Your task to perform on an android device: Check the weather Image 0: 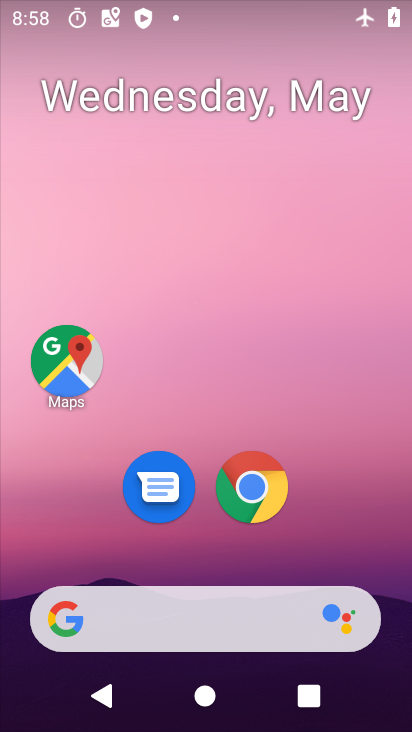
Step 0: drag from (198, 530) to (208, 178)
Your task to perform on an android device: Check the weather Image 1: 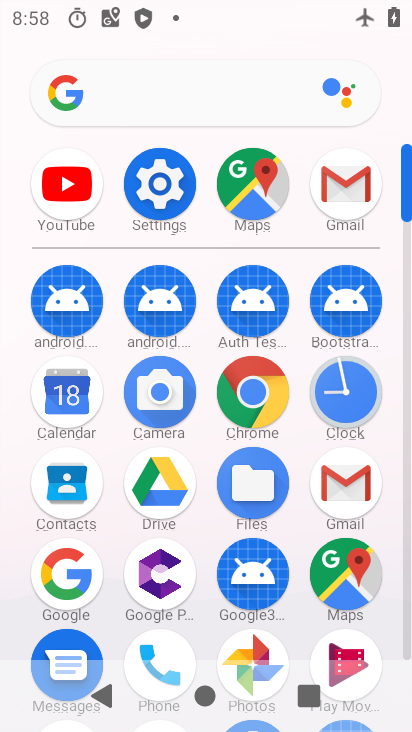
Step 1: drag from (110, 498) to (143, 244)
Your task to perform on an android device: Check the weather Image 2: 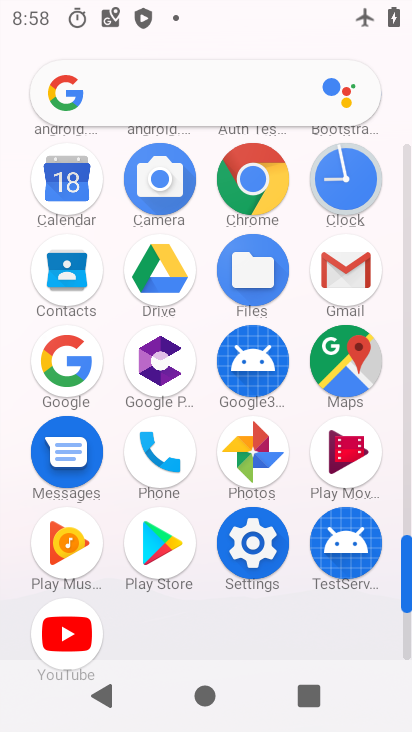
Step 2: drag from (143, 246) to (156, 523)
Your task to perform on an android device: Check the weather Image 3: 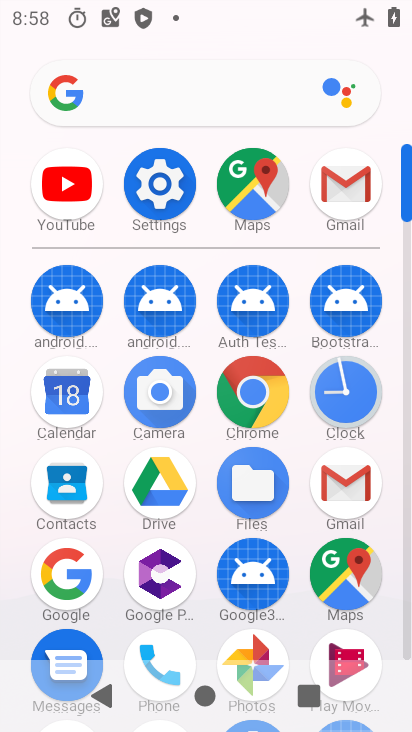
Step 3: click (77, 553)
Your task to perform on an android device: Check the weather Image 4: 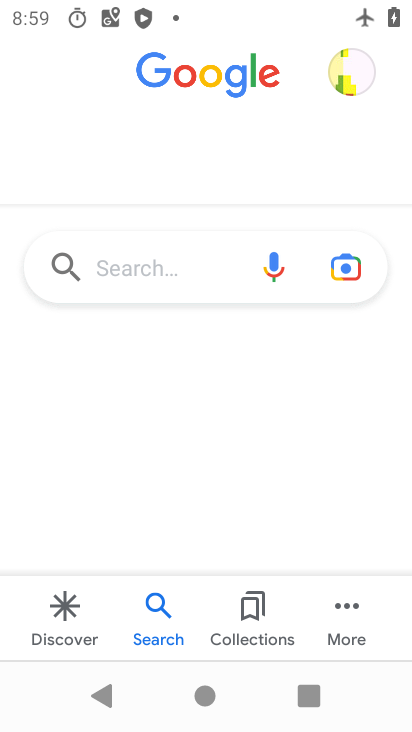
Step 4: click (167, 270)
Your task to perform on an android device: Check the weather Image 5: 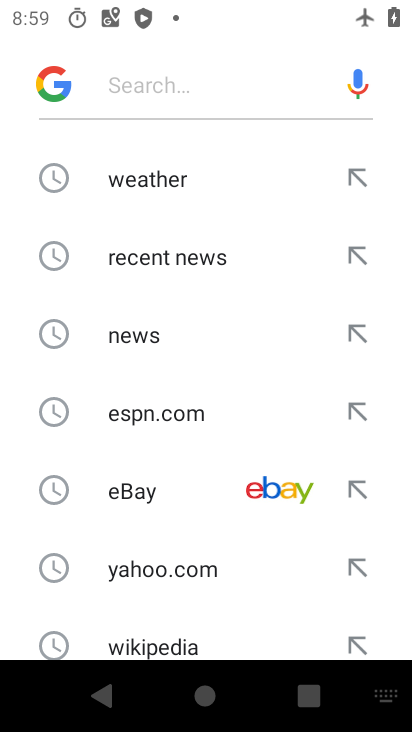
Step 5: click (146, 184)
Your task to perform on an android device: Check the weather Image 6: 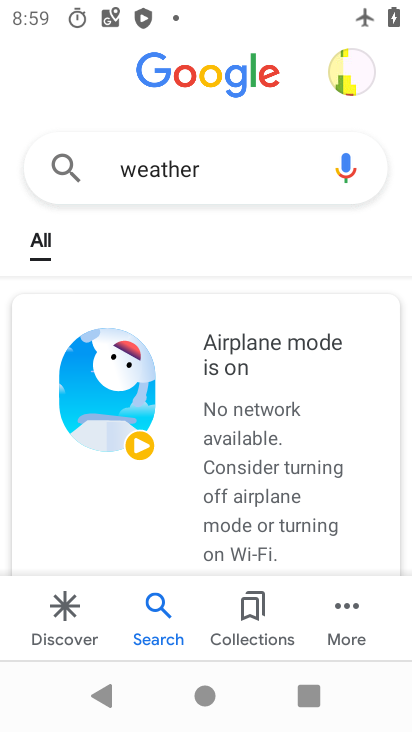
Step 6: task complete